Your task to perform on an android device: turn off location Image 0: 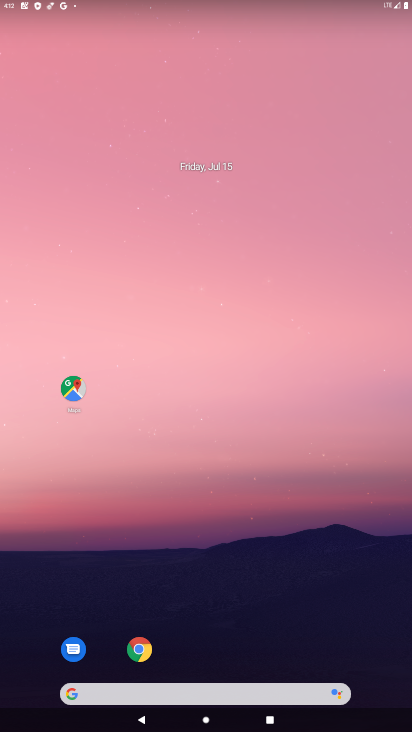
Step 0: drag from (250, 649) to (255, 195)
Your task to perform on an android device: turn off location Image 1: 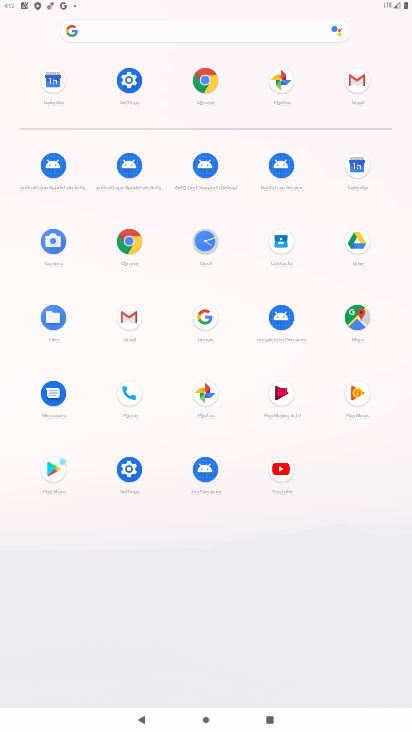
Step 1: click (137, 94)
Your task to perform on an android device: turn off location Image 2: 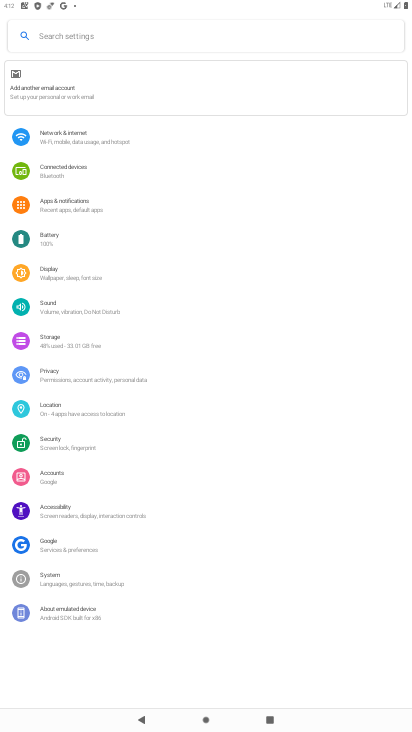
Step 2: click (72, 410)
Your task to perform on an android device: turn off location Image 3: 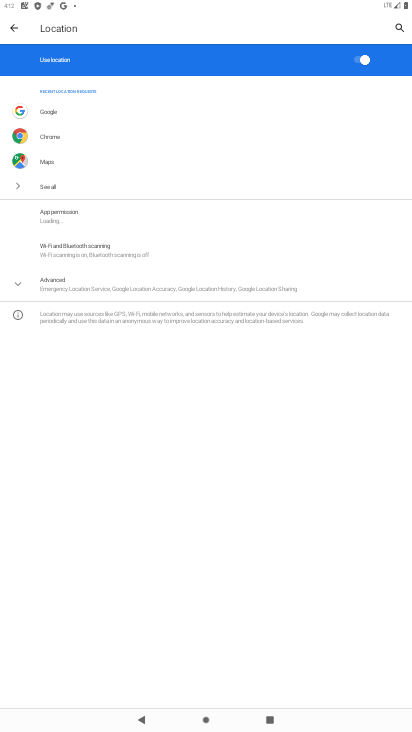
Step 3: click (360, 58)
Your task to perform on an android device: turn off location Image 4: 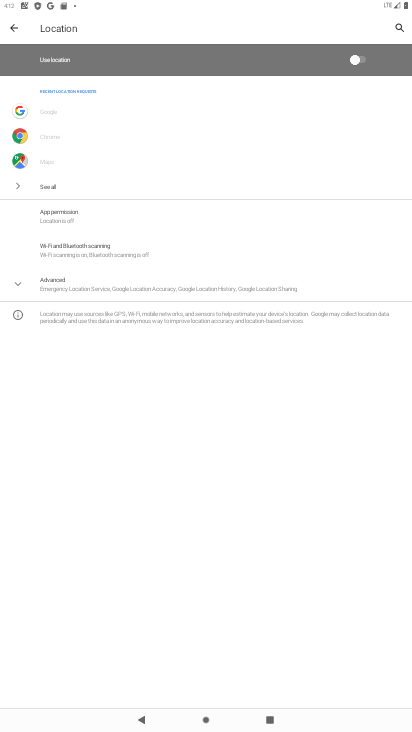
Step 4: task complete